Your task to perform on an android device: Open the phone app and click the voicemail tab. Image 0: 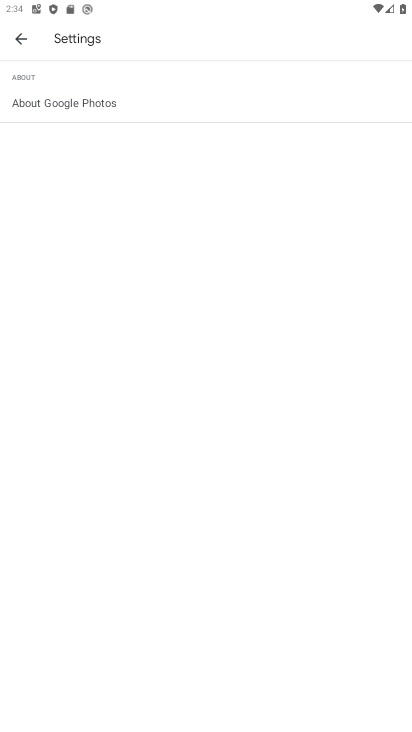
Step 0: press home button
Your task to perform on an android device: Open the phone app and click the voicemail tab. Image 1: 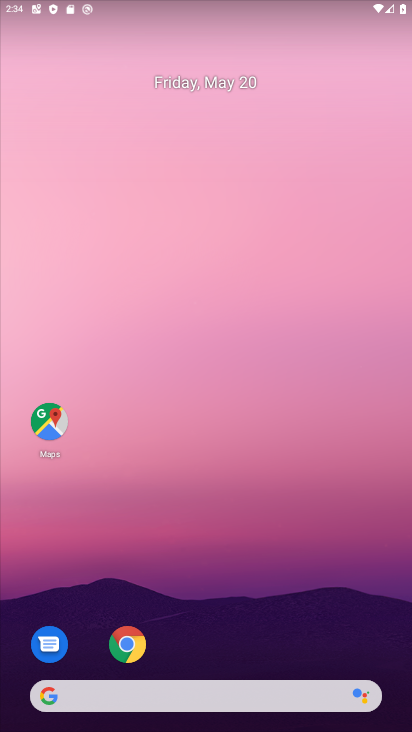
Step 1: drag from (307, 647) to (220, 19)
Your task to perform on an android device: Open the phone app and click the voicemail tab. Image 2: 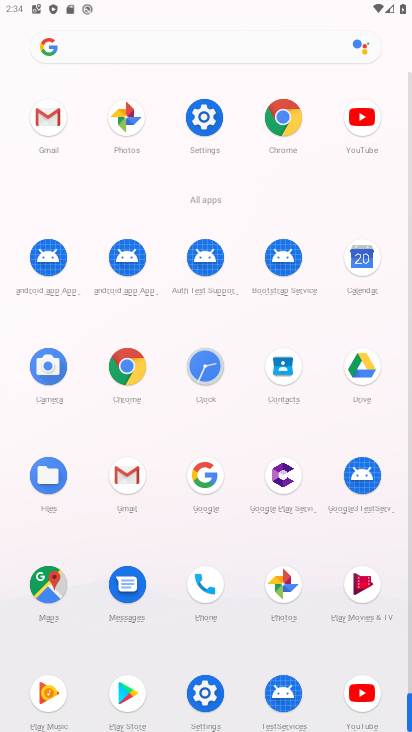
Step 2: click (206, 592)
Your task to perform on an android device: Open the phone app and click the voicemail tab. Image 3: 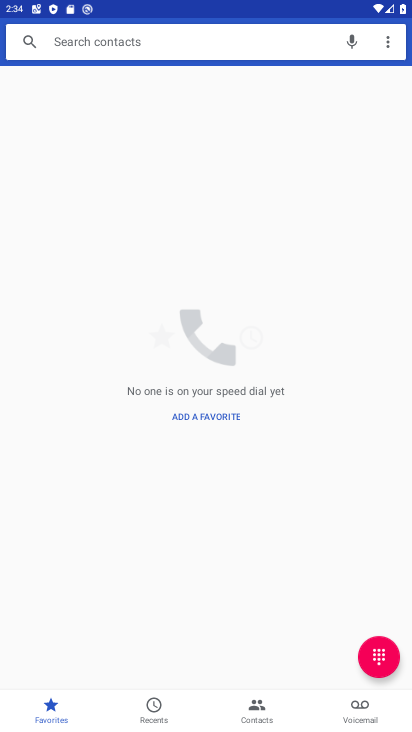
Step 3: click (373, 710)
Your task to perform on an android device: Open the phone app and click the voicemail tab. Image 4: 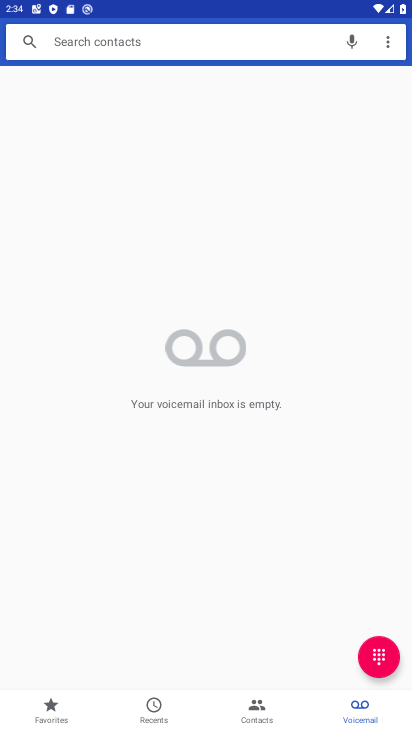
Step 4: task complete